Your task to perform on an android device: Open the map Image 0: 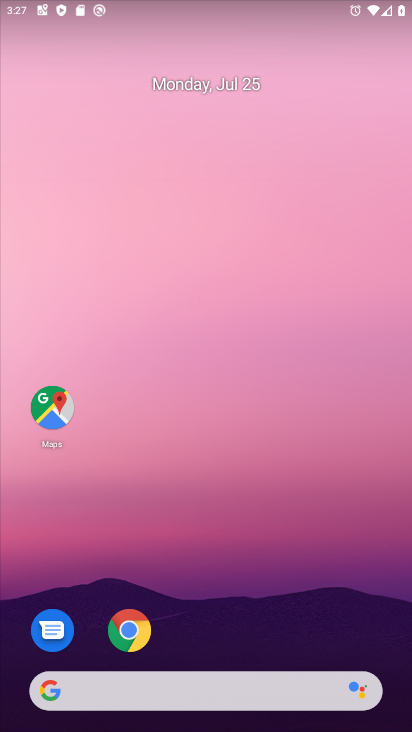
Step 0: drag from (228, 686) to (182, 87)
Your task to perform on an android device: Open the map Image 1: 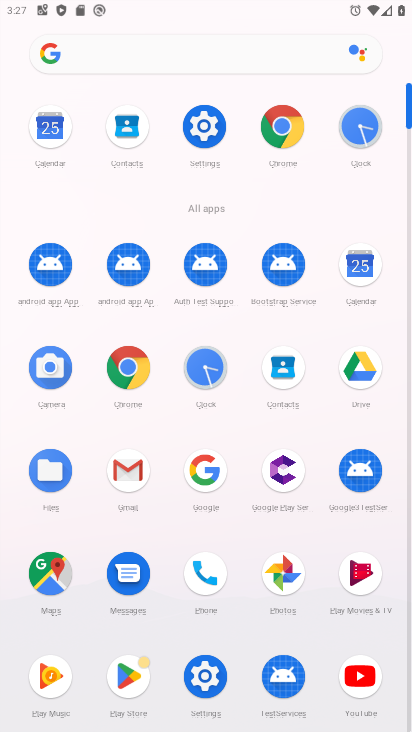
Step 1: click (45, 565)
Your task to perform on an android device: Open the map Image 2: 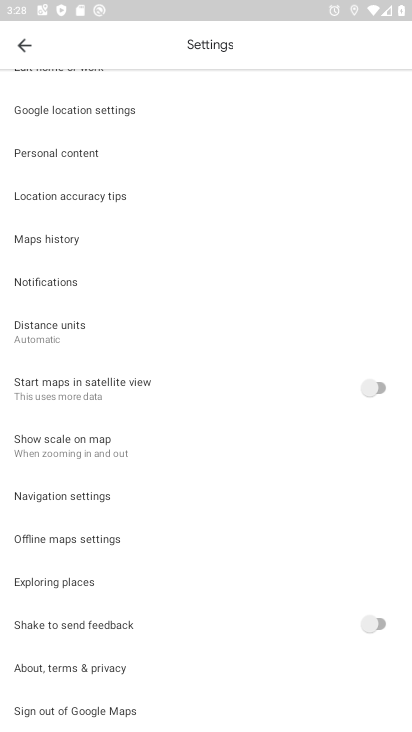
Step 2: task complete